Your task to perform on an android device: What is the news today? Image 0: 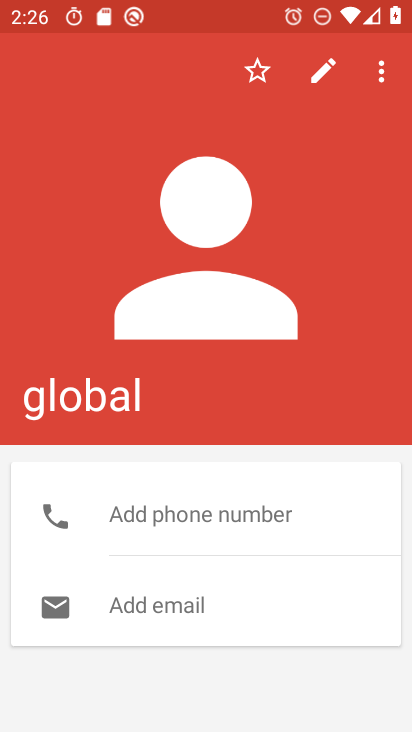
Step 0: press home button
Your task to perform on an android device: What is the news today? Image 1: 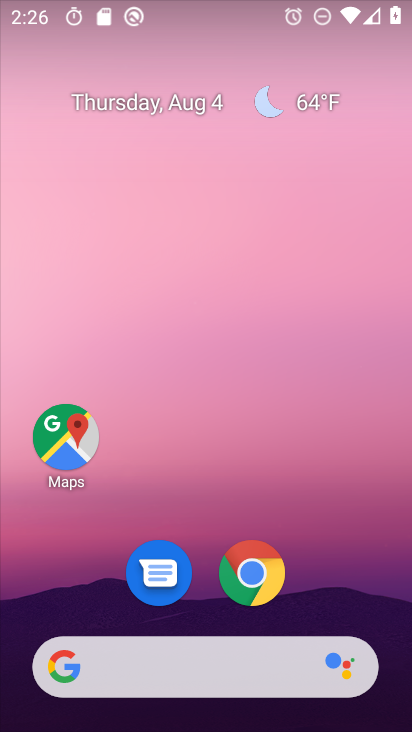
Step 1: drag from (361, 552) to (342, 103)
Your task to perform on an android device: What is the news today? Image 2: 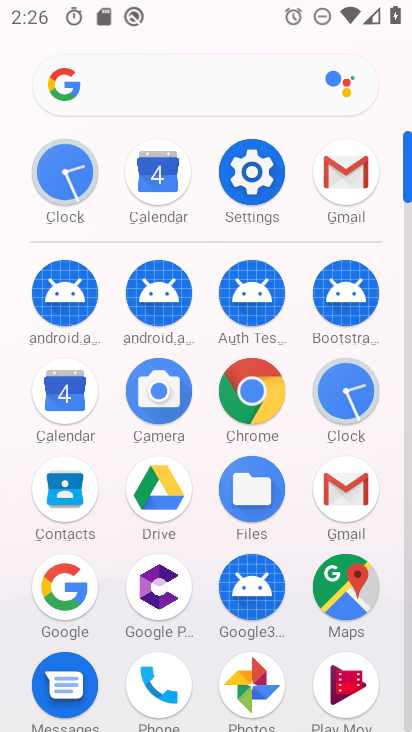
Step 2: click (254, 391)
Your task to perform on an android device: What is the news today? Image 3: 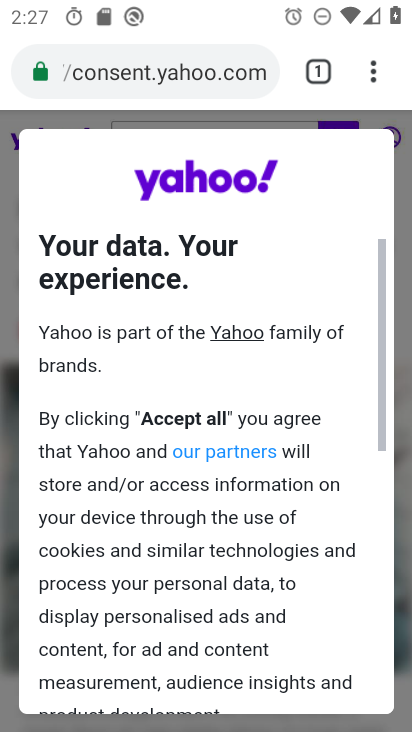
Step 3: click (208, 65)
Your task to perform on an android device: What is the news today? Image 4: 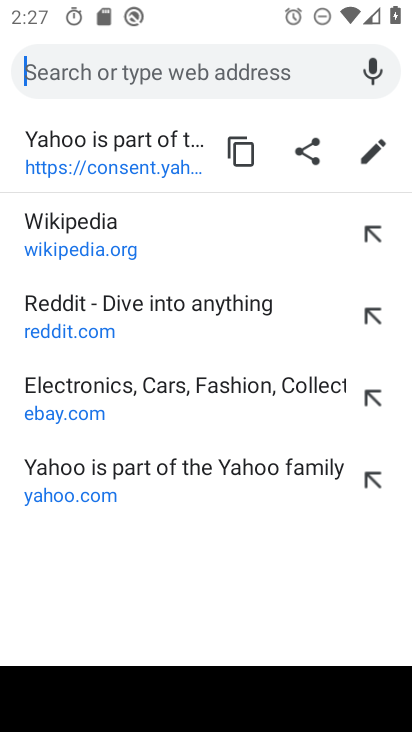
Step 4: type "news"
Your task to perform on an android device: What is the news today? Image 5: 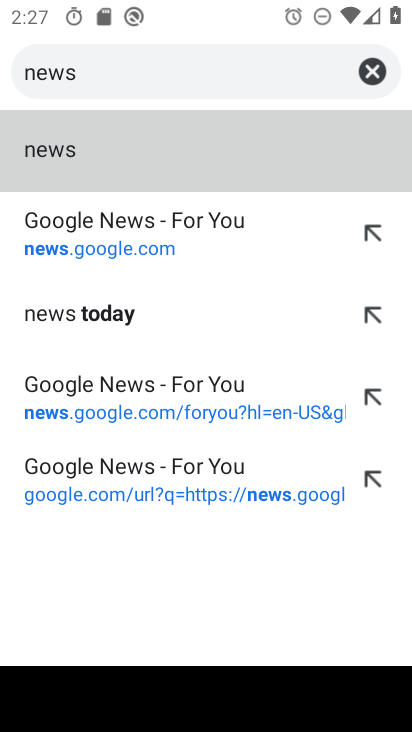
Step 5: click (124, 250)
Your task to perform on an android device: What is the news today? Image 6: 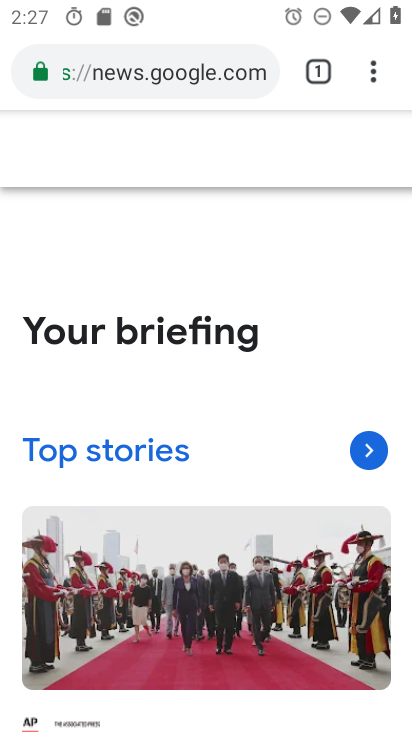
Step 6: task complete